Your task to perform on an android device: Search for Italian restaurants on Maps Image 0: 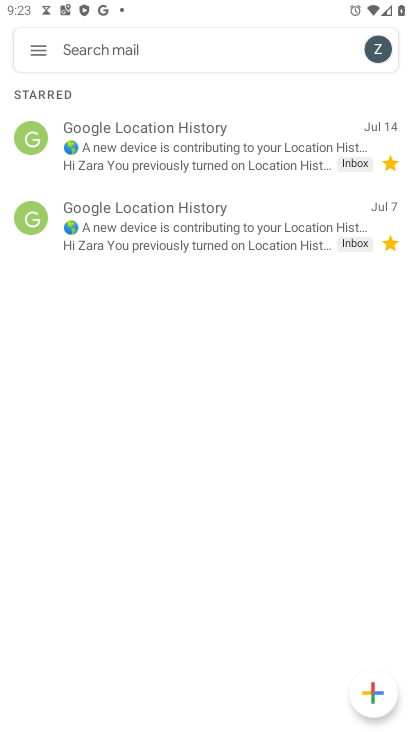
Step 0: press home button
Your task to perform on an android device: Search for Italian restaurants on Maps Image 1: 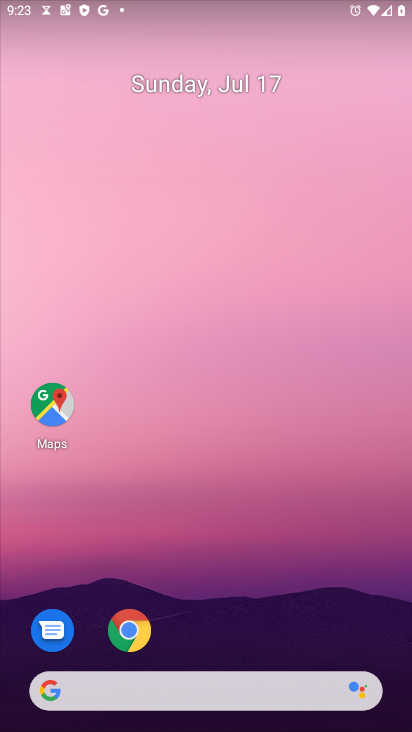
Step 1: click (44, 413)
Your task to perform on an android device: Search for Italian restaurants on Maps Image 2: 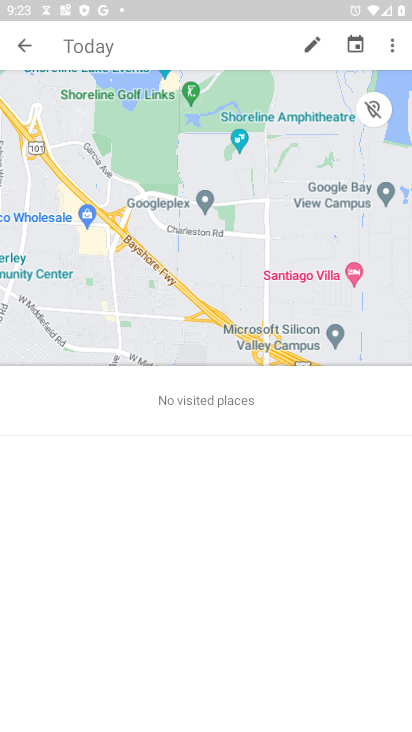
Step 2: click (18, 46)
Your task to perform on an android device: Search for Italian restaurants on Maps Image 3: 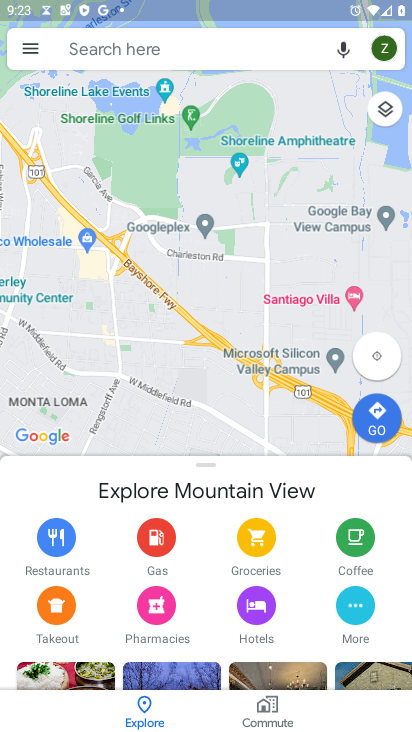
Step 3: click (217, 50)
Your task to perform on an android device: Search for Italian restaurants on Maps Image 4: 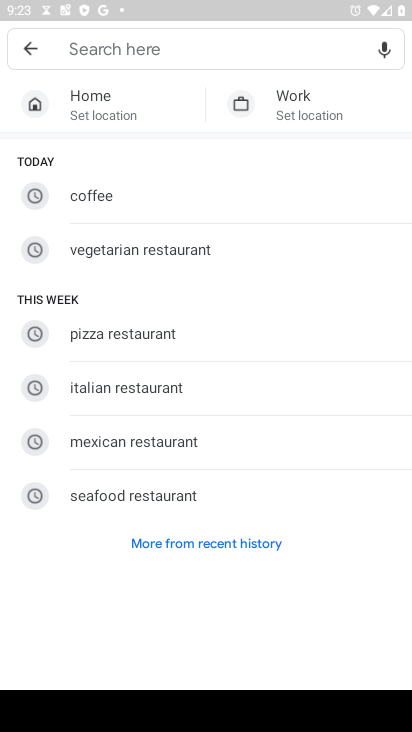
Step 4: click (110, 391)
Your task to perform on an android device: Search for Italian restaurants on Maps Image 5: 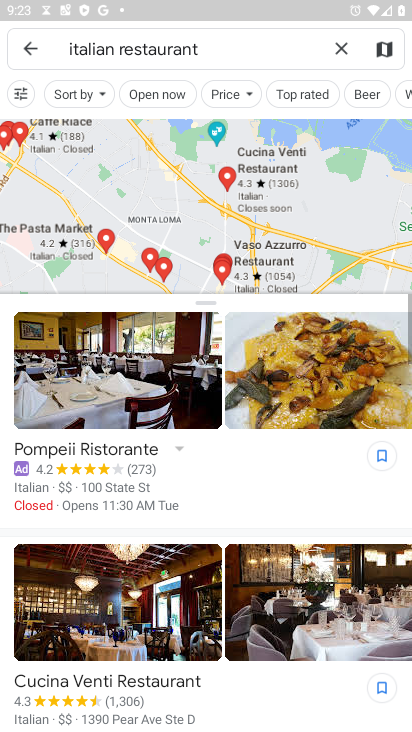
Step 5: task complete